Your task to perform on an android device: find photos in the google photos app Image 0: 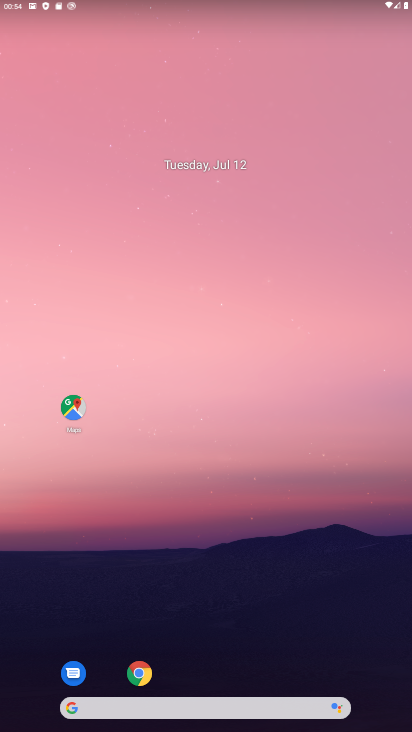
Step 0: press home button
Your task to perform on an android device: find photos in the google photos app Image 1: 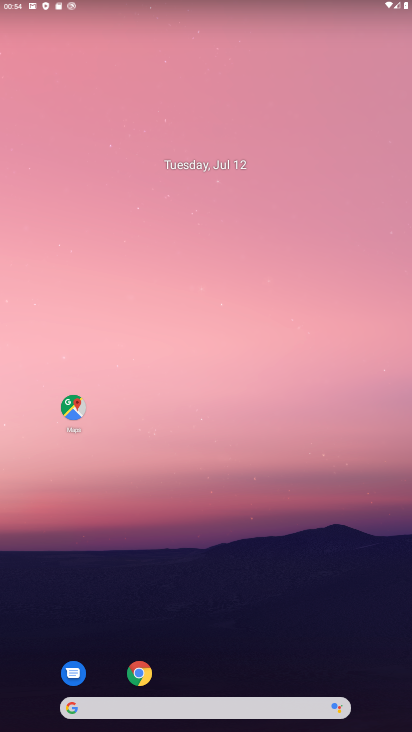
Step 1: drag from (261, 612) to (221, 112)
Your task to perform on an android device: find photos in the google photos app Image 2: 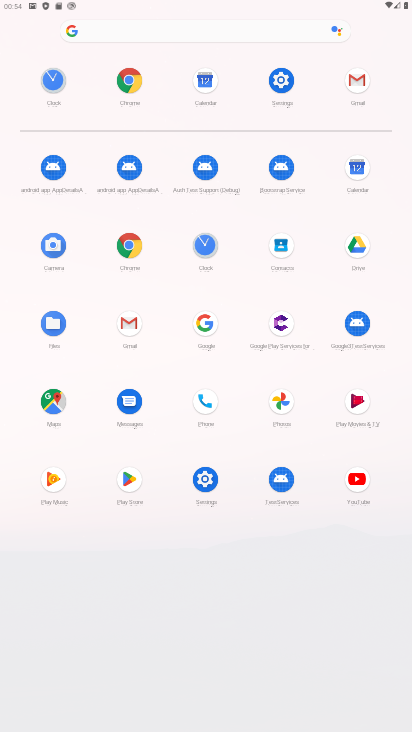
Step 2: click (278, 394)
Your task to perform on an android device: find photos in the google photos app Image 3: 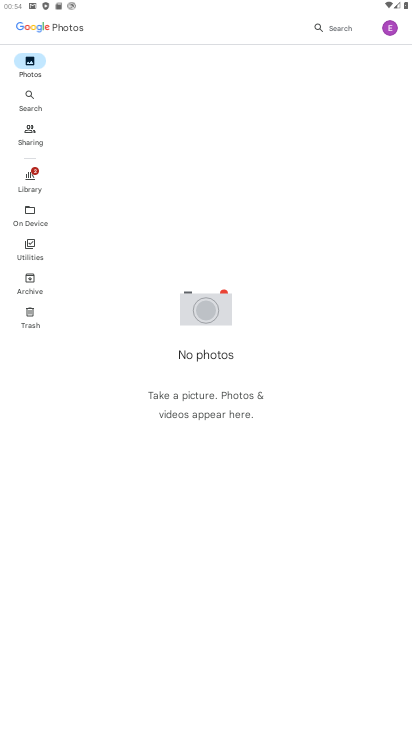
Step 3: click (27, 63)
Your task to perform on an android device: find photos in the google photos app Image 4: 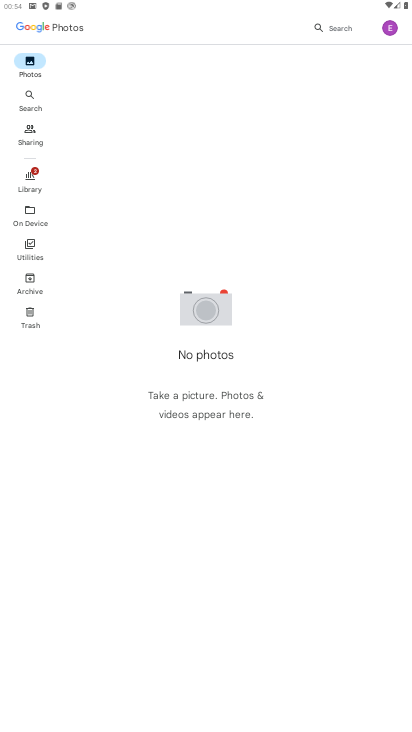
Step 4: click (27, 90)
Your task to perform on an android device: find photos in the google photos app Image 5: 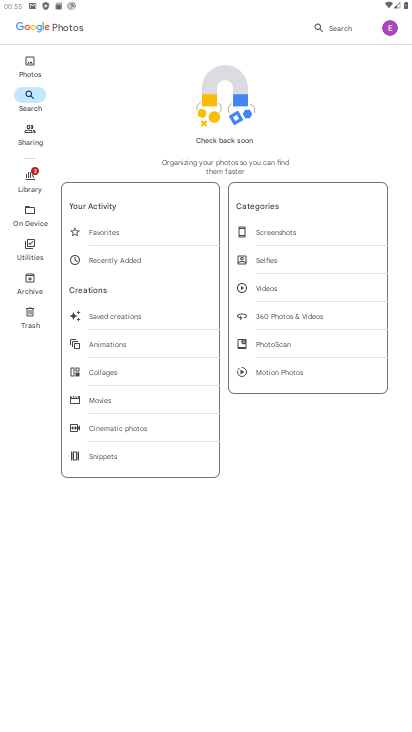
Step 5: click (199, 572)
Your task to perform on an android device: find photos in the google photos app Image 6: 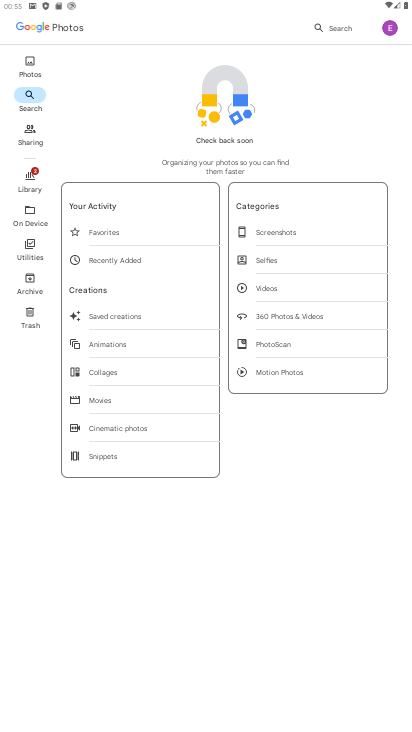
Step 6: task complete